Your task to perform on an android device: Show me the alarms in the clock app Image 0: 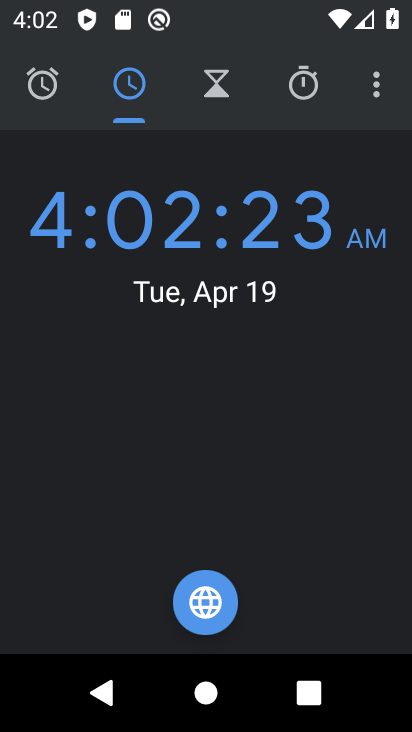
Step 0: click (54, 87)
Your task to perform on an android device: Show me the alarms in the clock app Image 1: 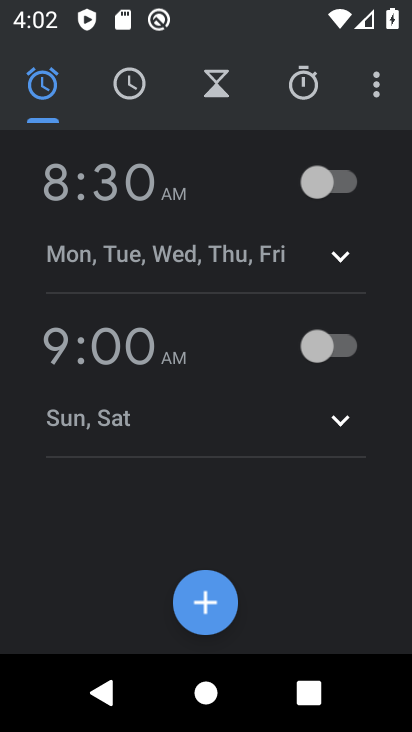
Step 1: task complete